Your task to perform on an android device: Open sound settings Image 0: 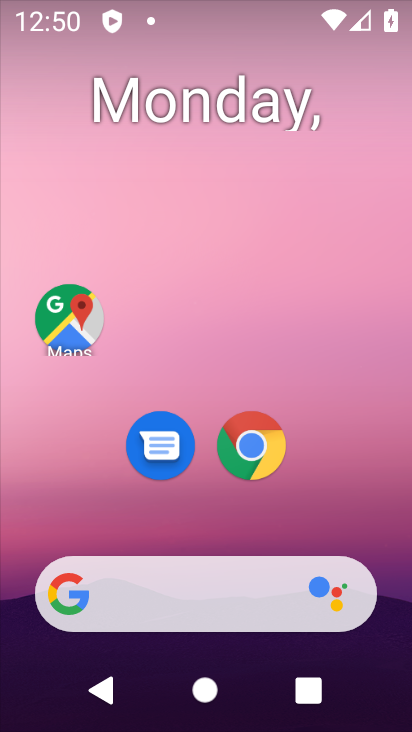
Step 0: drag from (383, 588) to (355, 140)
Your task to perform on an android device: Open sound settings Image 1: 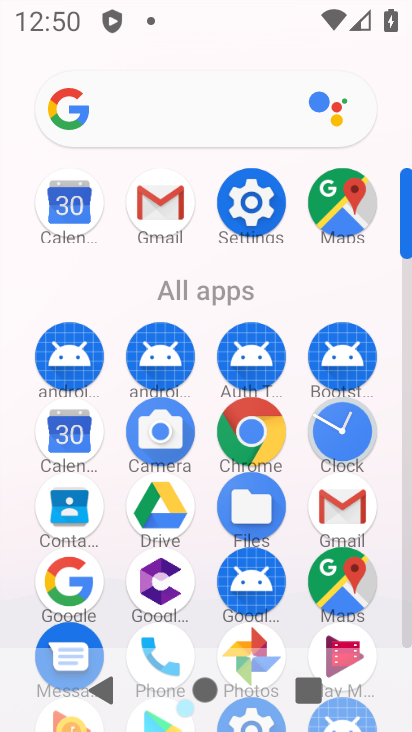
Step 1: click (403, 619)
Your task to perform on an android device: Open sound settings Image 2: 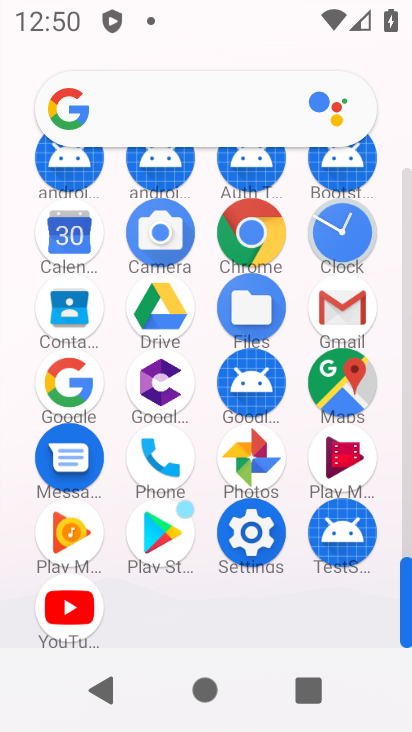
Step 2: click (251, 537)
Your task to perform on an android device: Open sound settings Image 3: 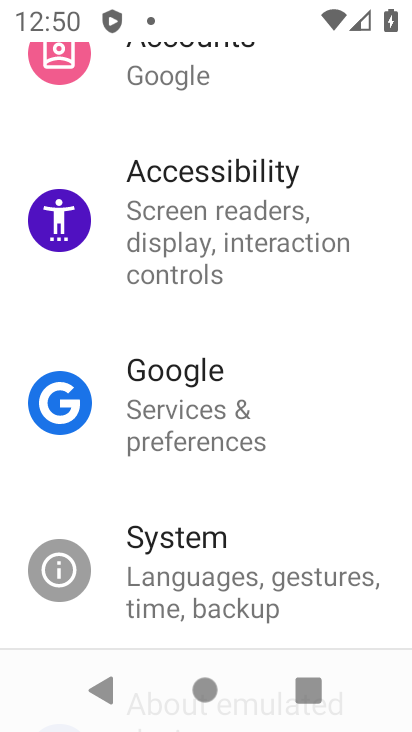
Step 3: drag from (366, 255) to (358, 474)
Your task to perform on an android device: Open sound settings Image 4: 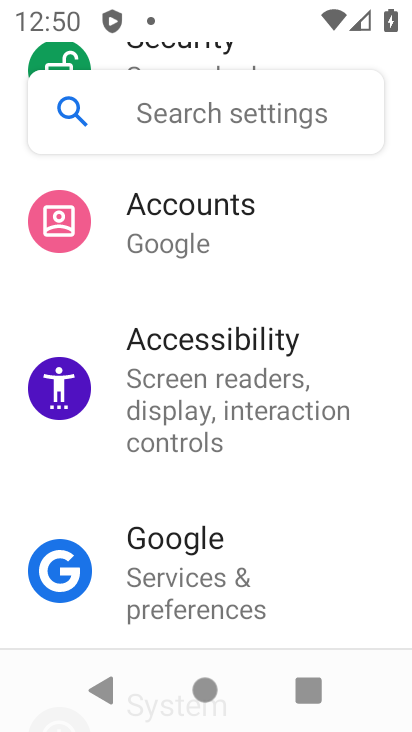
Step 4: drag from (368, 266) to (346, 452)
Your task to perform on an android device: Open sound settings Image 5: 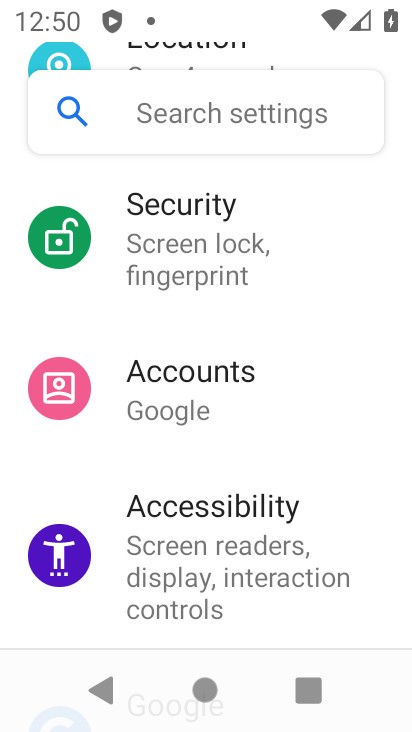
Step 5: drag from (334, 328) to (335, 534)
Your task to perform on an android device: Open sound settings Image 6: 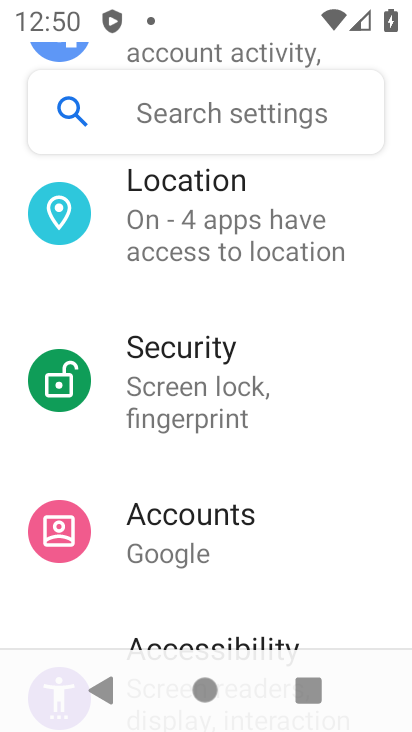
Step 6: drag from (362, 278) to (350, 455)
Your task to perform on an android device: Open sound settings Image 7: 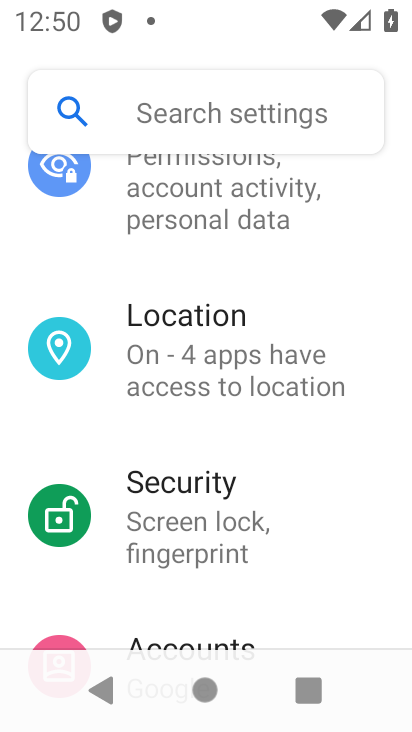
Step 7: drag from (356, 279) to (346, 463)
Your task to perform on an android device: Open sound settings Image 8: 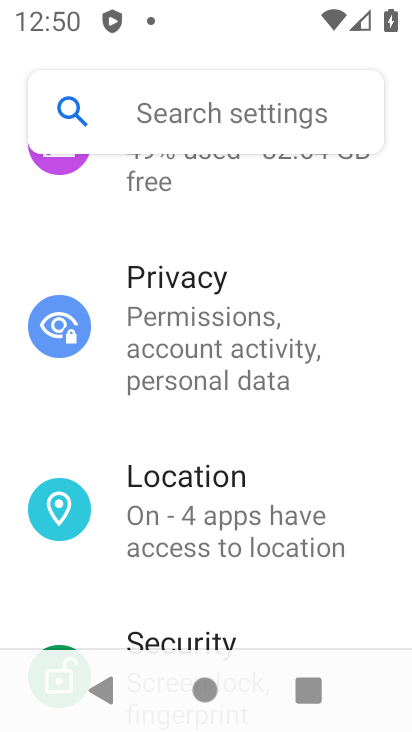
Step 8: drag from (355, 271) to (354, 452)
Your task to perform on an android device: Open sound settings Image 9: 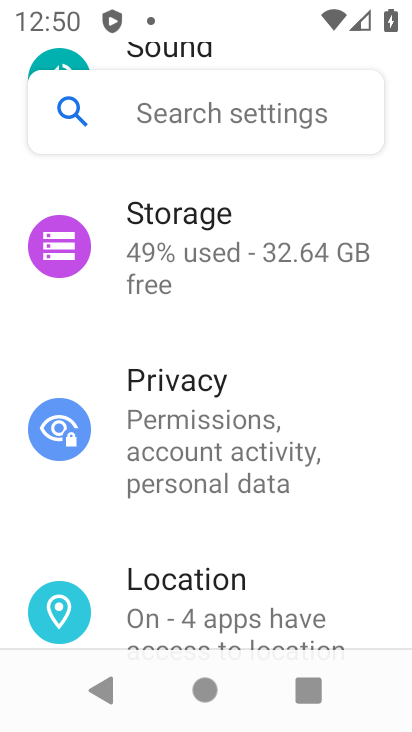
Step 9: drag from (354, 357) to (342, 561)
Your task to perform on an android device: Open sound settings Image 10: 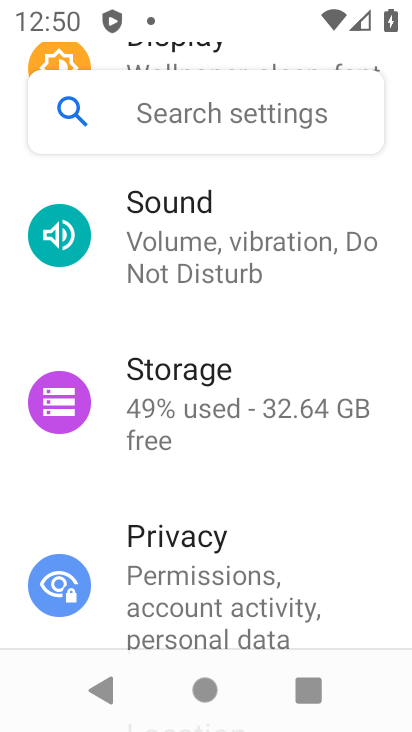
Step 10: click (150, 223)
Your task to perform on an android device: Open sound settings Image 11: 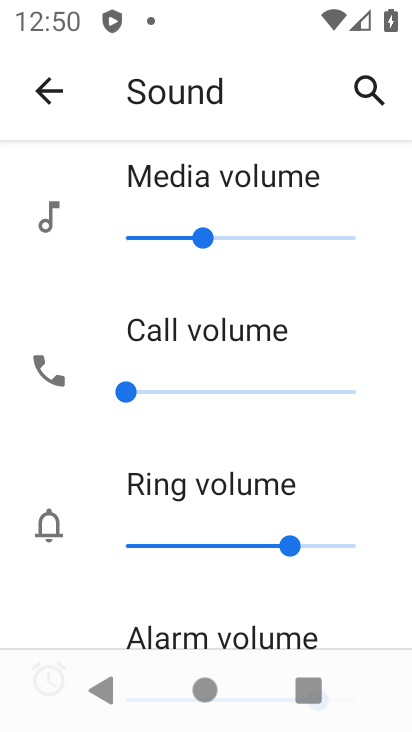
Step 11: task complete